Your task to perform on an android device: Go to Yahoo.com Image 0: 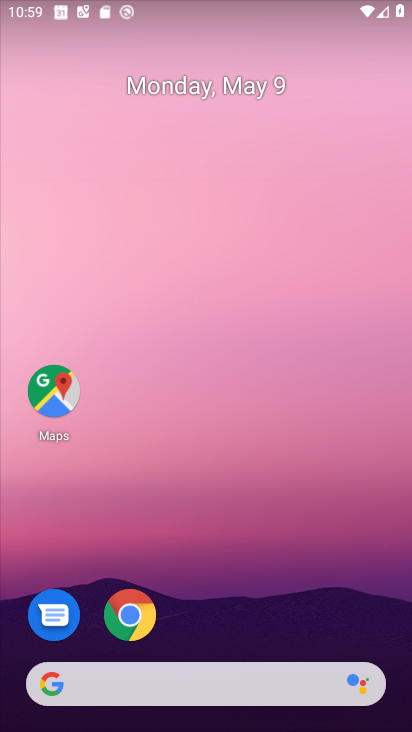
Step 0: drag from (271, 710) to (108, 94)
Your task to perform on an android device: Go to Yahoo.com Image 1: 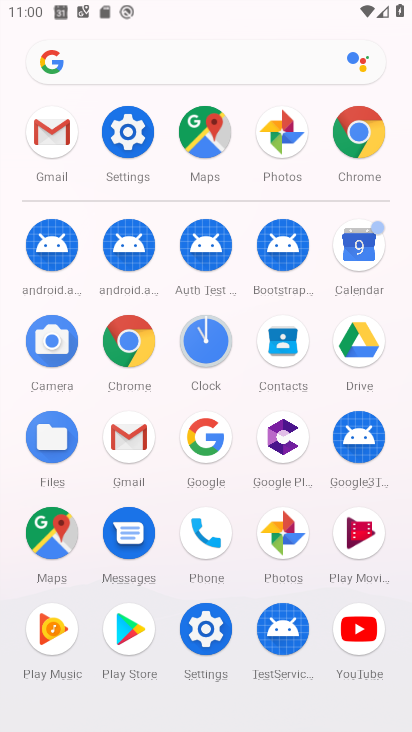
Step 1: click (138, 341)
Your task to perform on an android device: Go to Yahoo.com Image 2: 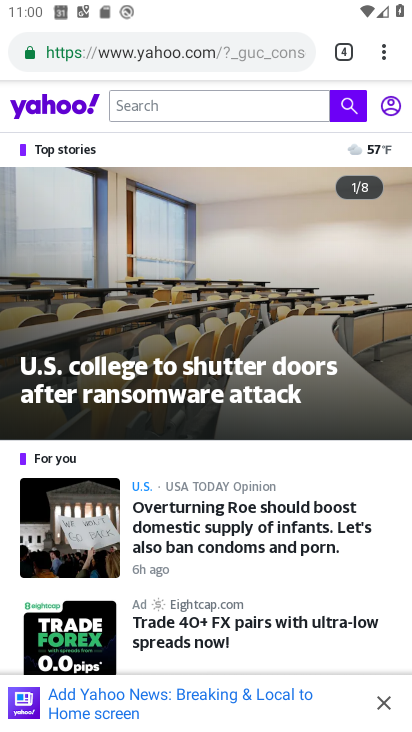
Step 2: click (223, 55)
Your task to perform on an android device: Go to Yahoo.com Image 3: 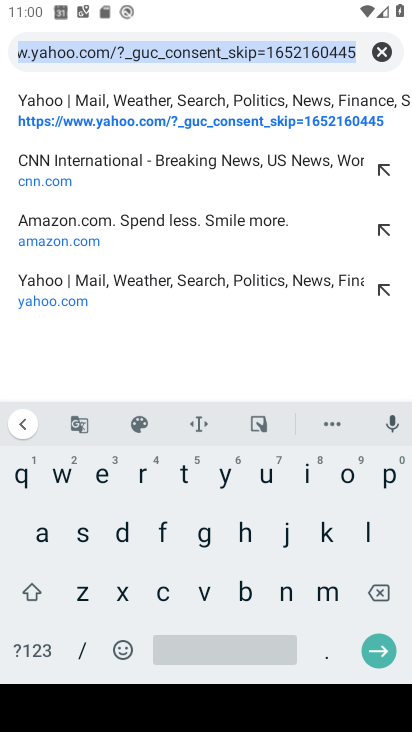
Step 3: click (105, 96)
Your task to perform on an android device: Go to Yahoo.com Image 4: 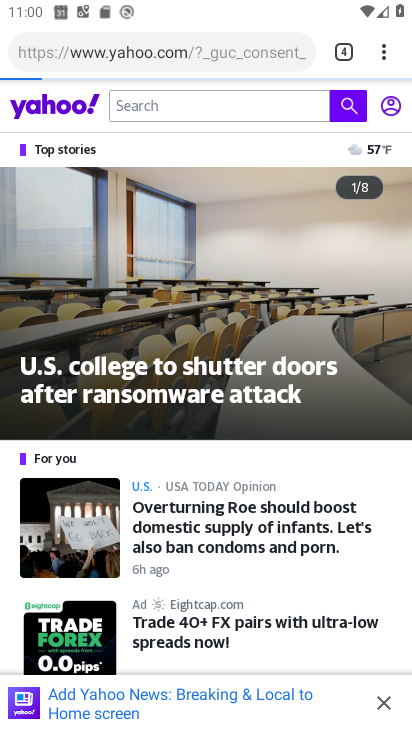
Step 4: task complete